Your task to perform on an android device: Open network settings Image 0: 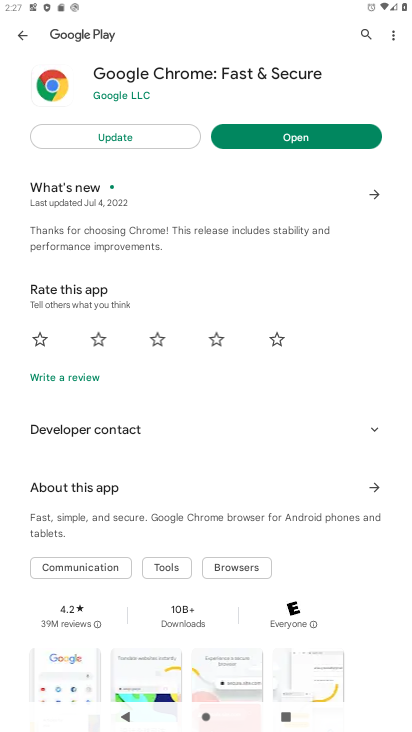
Step 0: press home button
Your task to perform on an android device: Open network settings Image 1: 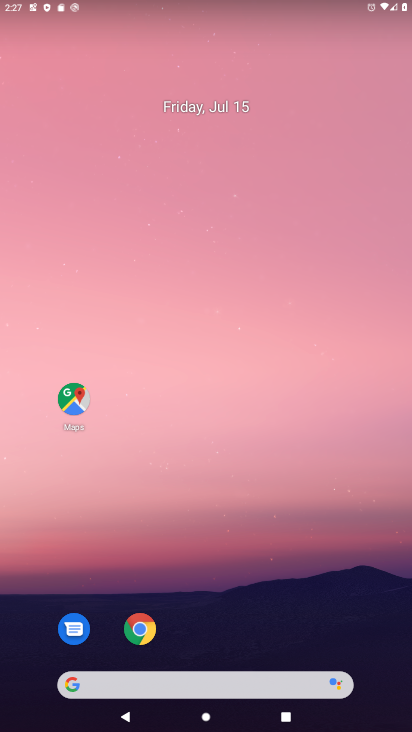
Step 1: drag from (336, 578) to (220, 168)
Your task to perform on an android device: Open network settings Image 2: 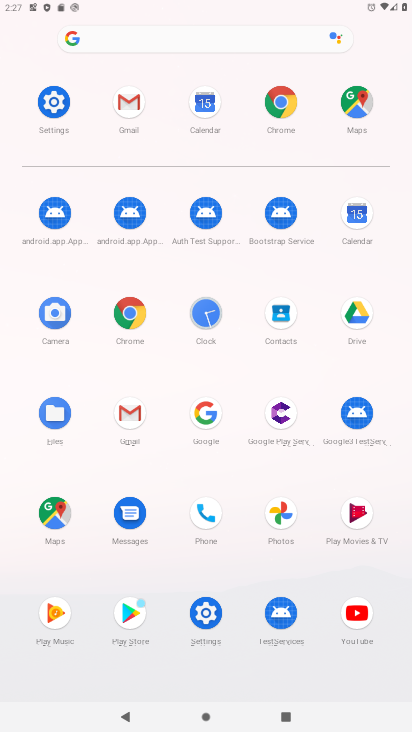
Step 2: click (52, 94)
Your task to perform on an android device: Open network settings Image 3: 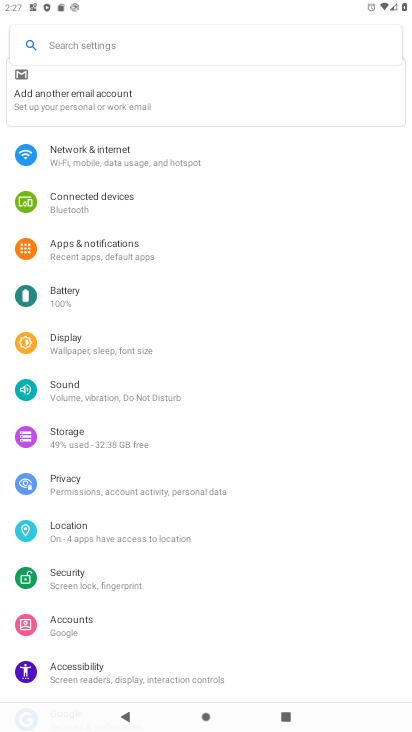
Step 3: click (105, 165)
Your task to perform on an android device: Open network settings Image 4: 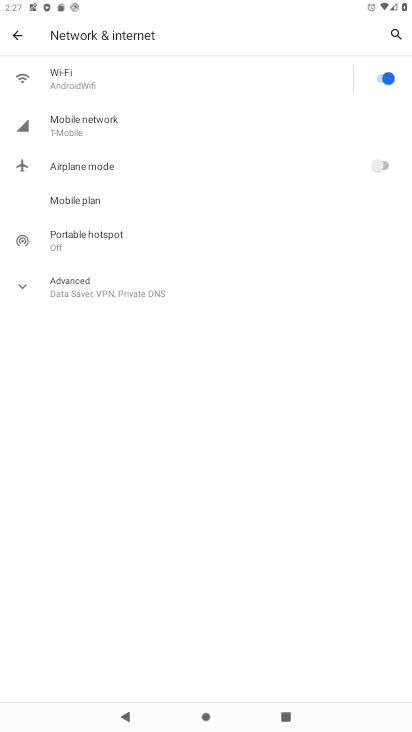
Step 4: click (105, 292)
Your task to perform on an android device: Open network settings Image 5: 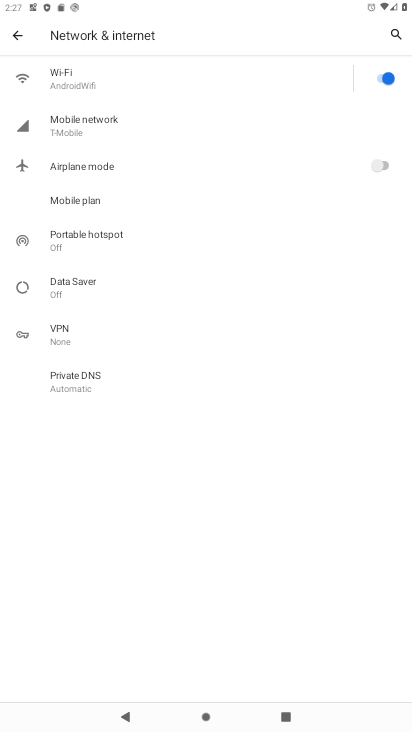
Step 5: task complete